Your task to perform on an android device: Go to internet settings Image 0: 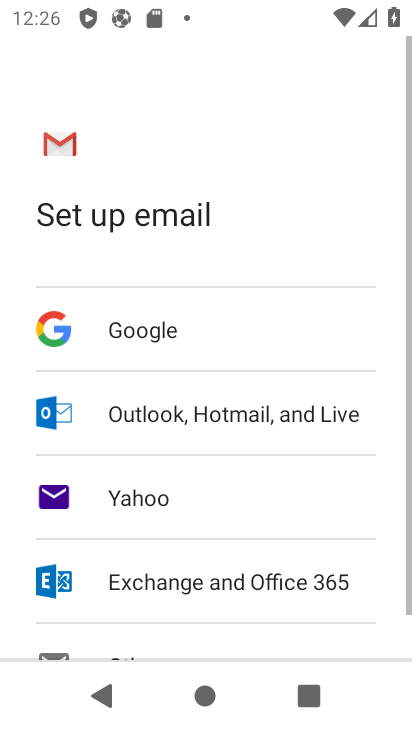
Step 0: press home button
Your task to perform on an android device: Go to internet settings Image 1: 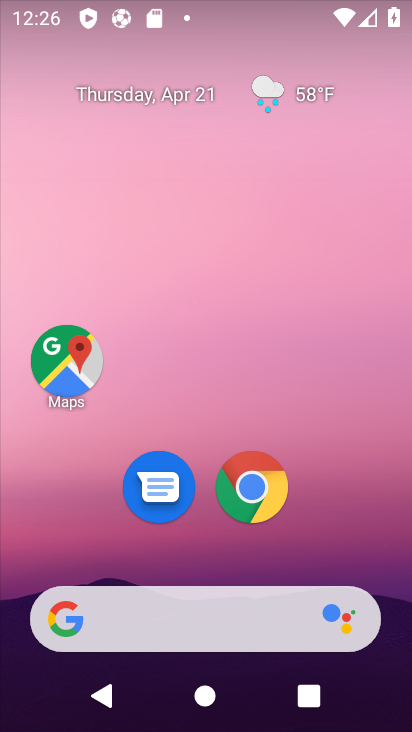
Step 1: drag from (367, 554) to (335, 5)
Your task to perform on an android device: Go to internet settings Image 2: 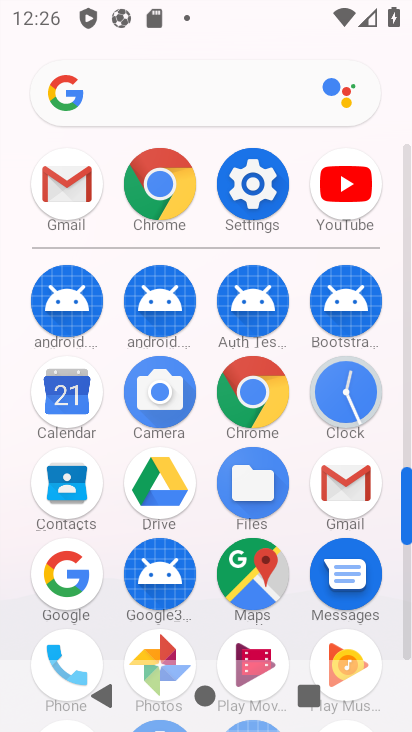
Step 2: click (248, 184)
Your task to perform on an android device: Go to internet settings Image 3: 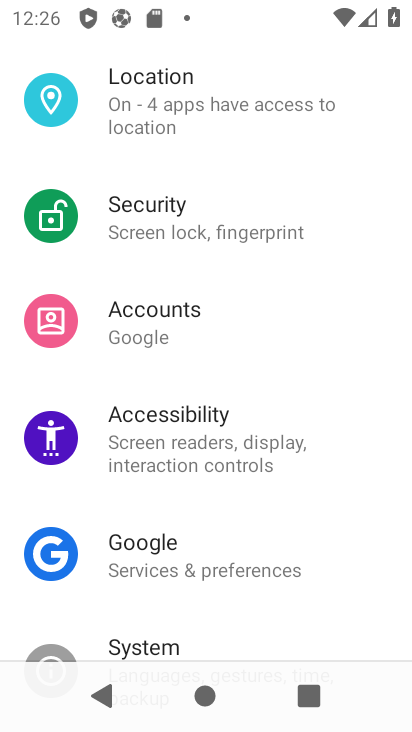
Step 3: drag from (350, 216) to (334, 554)
Your task to perform on an android device: Go to internet settings Image 4: 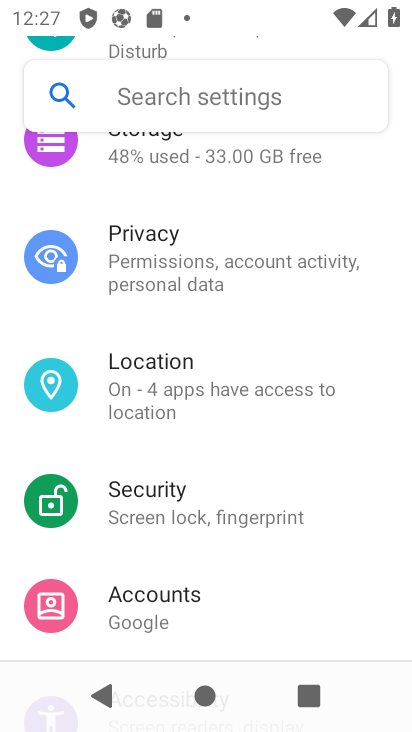
Step 4: drag from (299, 214) to (301, 567)
Your task to perform on an android device: Go to internet settings Image 5: 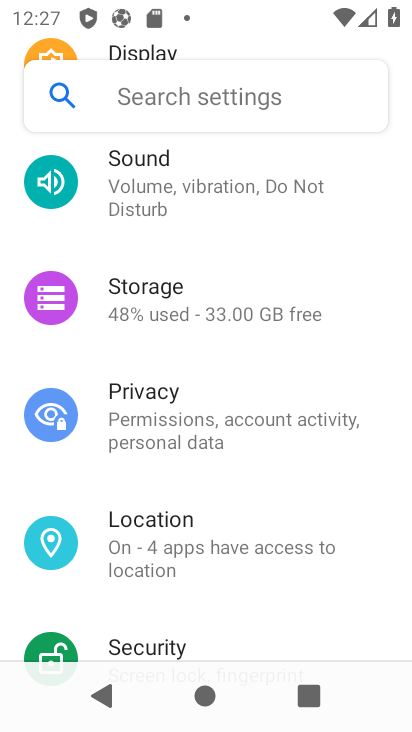
Step 5: drag from (287, 213) to (300, 505)
Your task to perform on an android device: Go to internet settings Image 6: 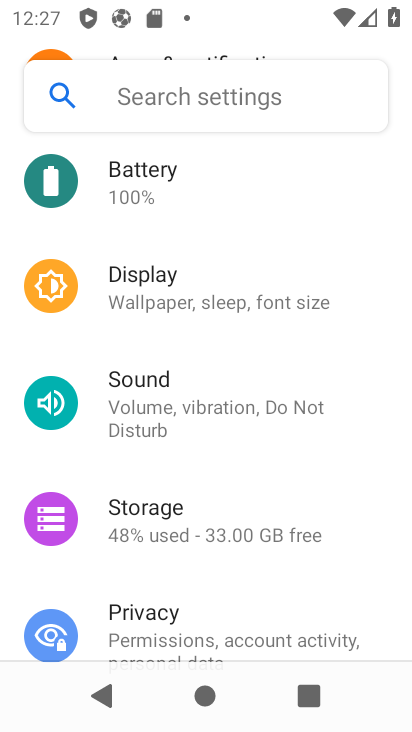
Step 6: drag from (267, 315) to (270, 574)
Your task to perform on an android device: Go to internet settings Image 7: 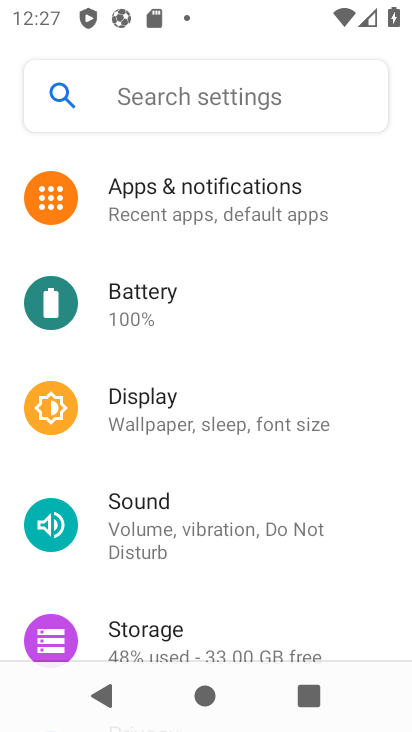
Step 7: drag from (326, 327) to (317, 582)
Your task to perform on an android device: Go to internet settings Image 8: 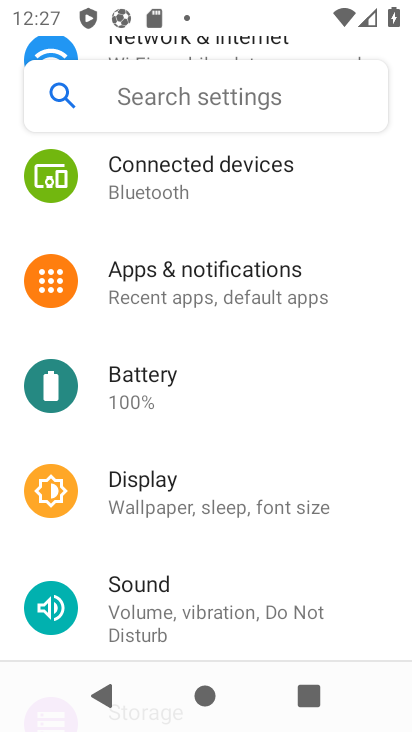
Step 8: drag from (350, 240) to (348, 631)
Your task to perform on an android device: Go to internet settings Image 9: 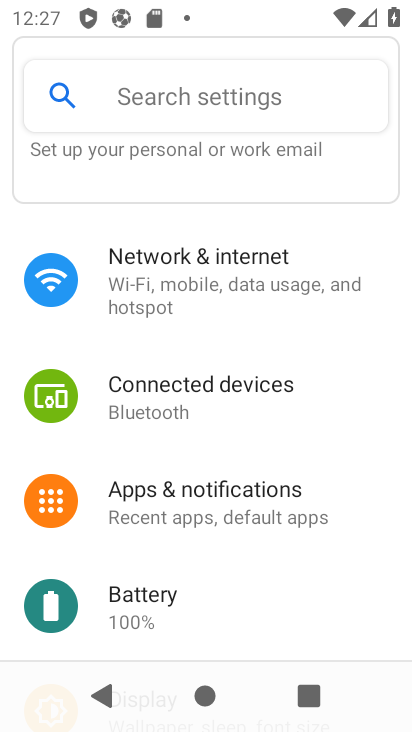
Step 9: click (196, 288)
Your task to perform on an android device: Go to internet settings Image 10: 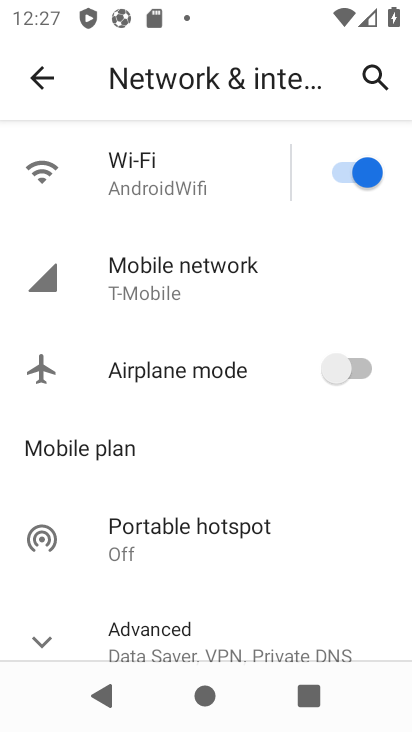
Step 10: drag from (313, 543) to (295, 165)
Your task to perform on an android device: Go to internet settings Image 11: 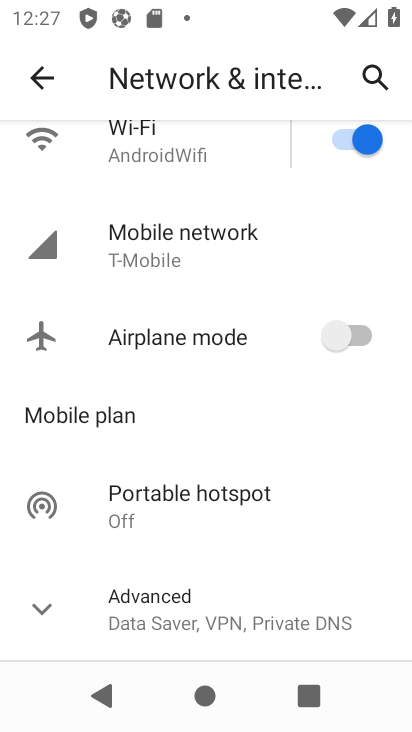
Step 11: click (41, 618)
Your task to perform on an android device: Go to internet settings Image 12: 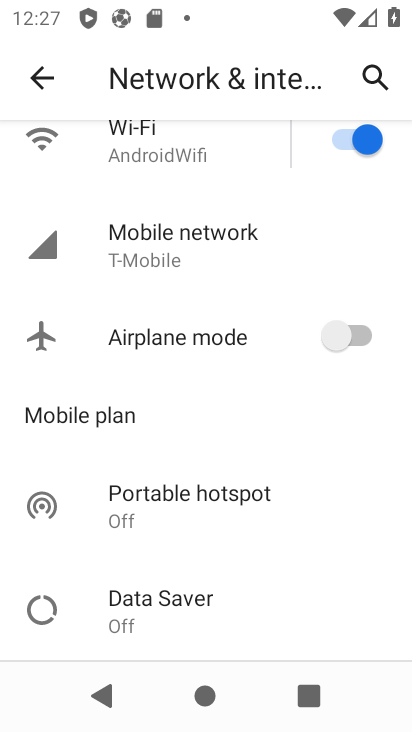
Step 12: task complete